Your task to perform on an android device: choose inbox layout in the gmail app Image 0: 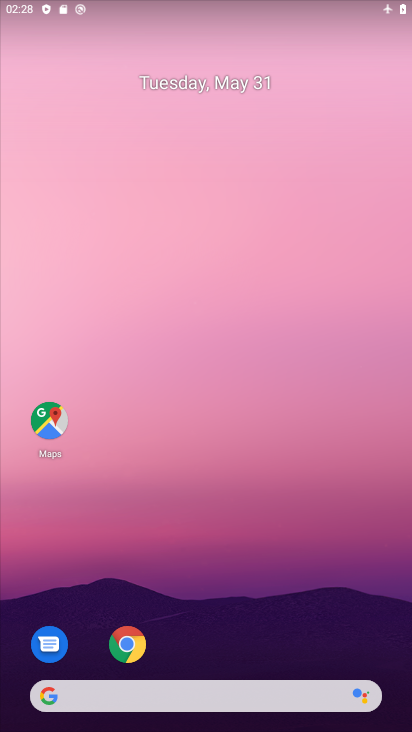
Step 0: drag from (299, 549) to (264, 112)
Your task to perform on an android device: choose inbox layout in the gmail app Image 1: 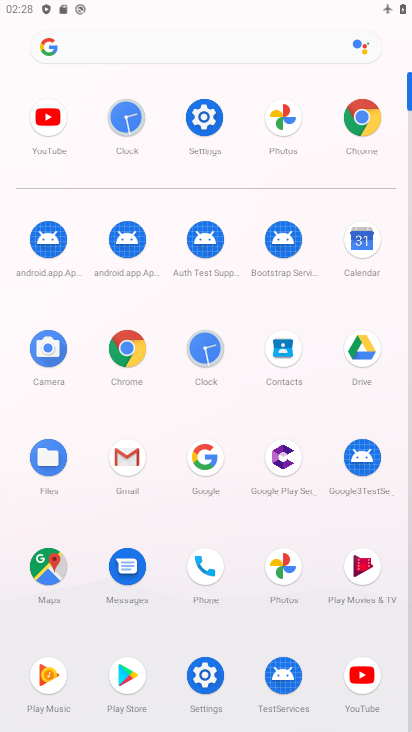
Step 1: click (131, 455)
Your task to perform on an android device: choose inbox layout in the gmail app Image 2: 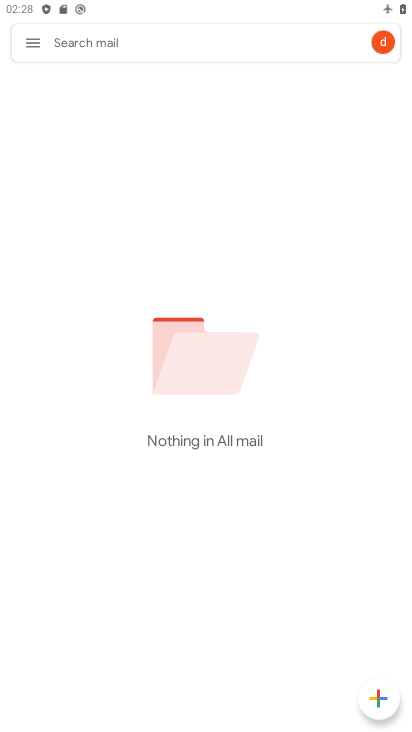
Step 2: click (25, 39)
Your task to perform on an android device: choose inbox layout in the gmail app Image 3: 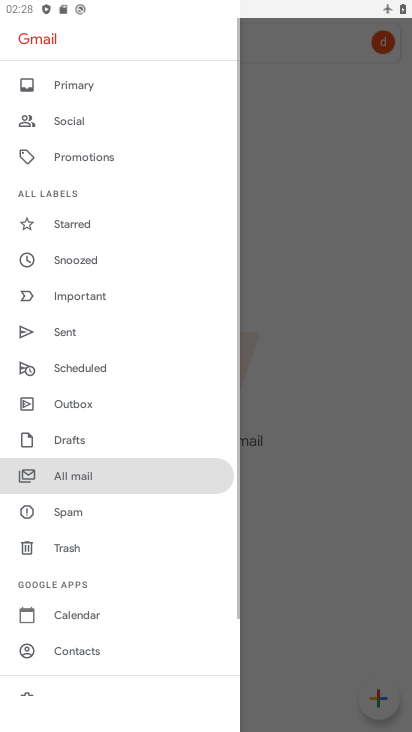
Step 3: drag from (95, 631) to (120, 225)
Your task to perform on an android device: choose inbox layout in the gmail app Image 4: 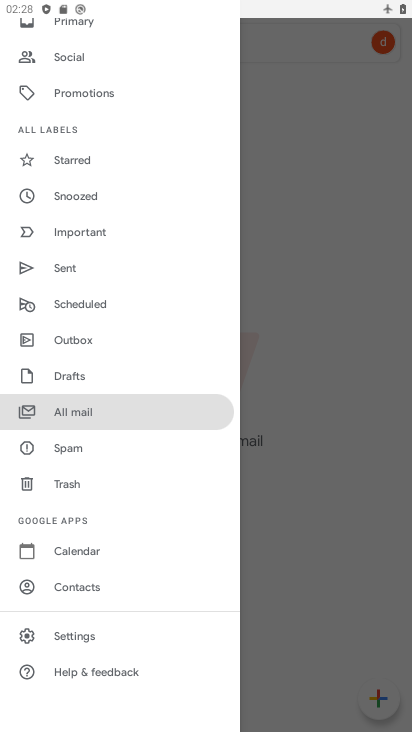
Step 4: click (85, 634)
Your task to perform on an android device: choose inbox layout in the gmail app Image 5: 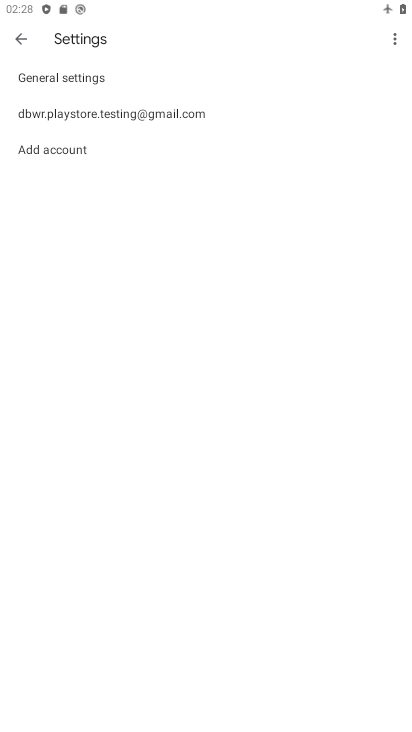
Step 5: click (132, 117)
Your task to perform on an android device: choose inbox layout in the gmail app Image 6: 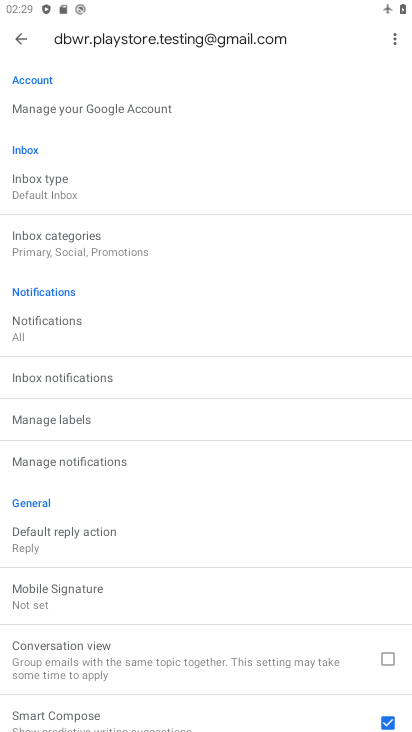
Step 6: click (47, 196)
Your task to perform on an android device: choose inbox layout in the gmail app Image 7: 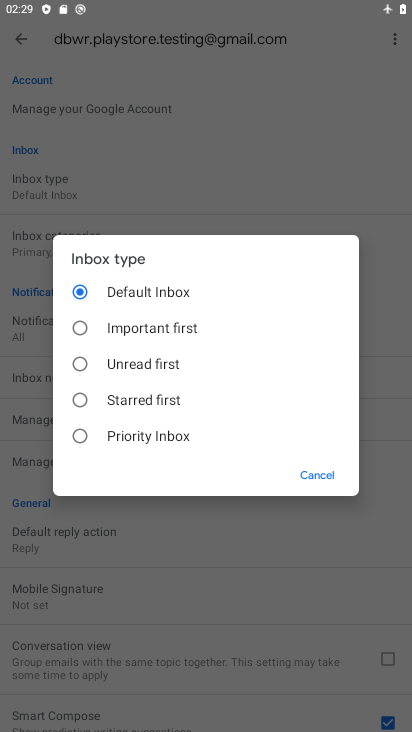
Step 7: task complete